Your task to perform on an android device: Find coffee shops on Maps Image 0: 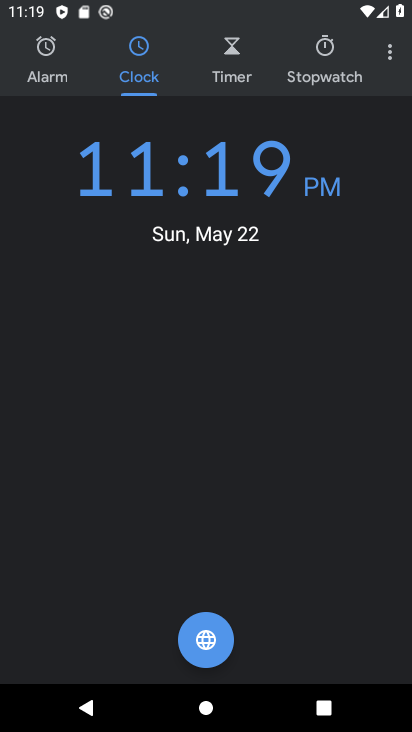
Step 0: press home button
Your task to perform on an android device: Find coffee shops on Maps Image 1: 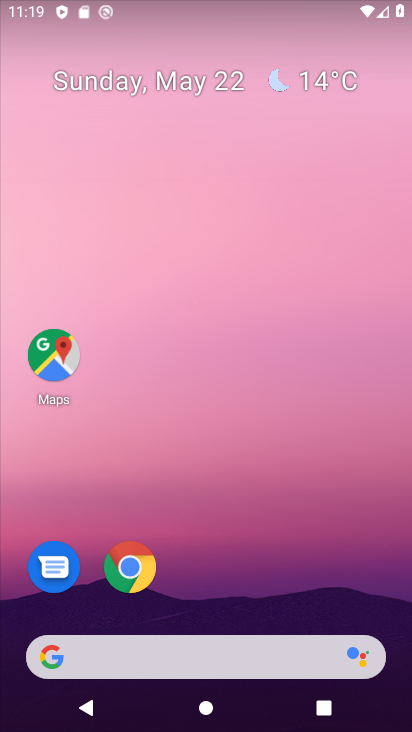
Step 1: click (55, 358)
Your task to perform on an android device: Find coffee shops on Maps Image 2: 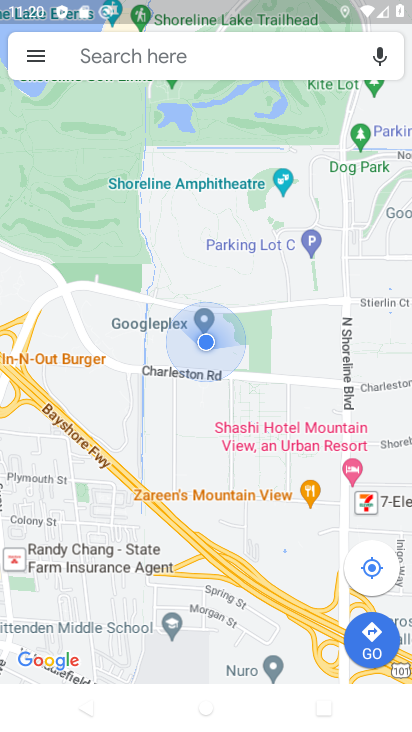
Step 2: click (165, 57)
Your task to perform on an android device: Find coffee shops on Maps Image 3: 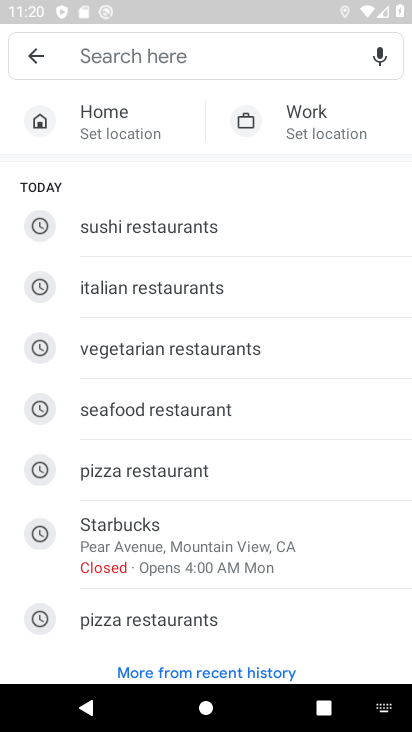
Step 3: type "coffee shop"
Your task to perform on an android device: Find coffee shops on Maps Image 4: 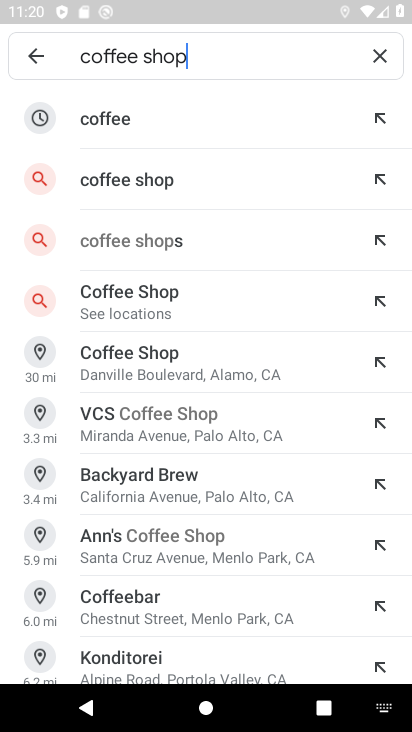
Step 4: click (173, 187)
Your task to perform on an android device: Find coffee shops on Maps Image 5: 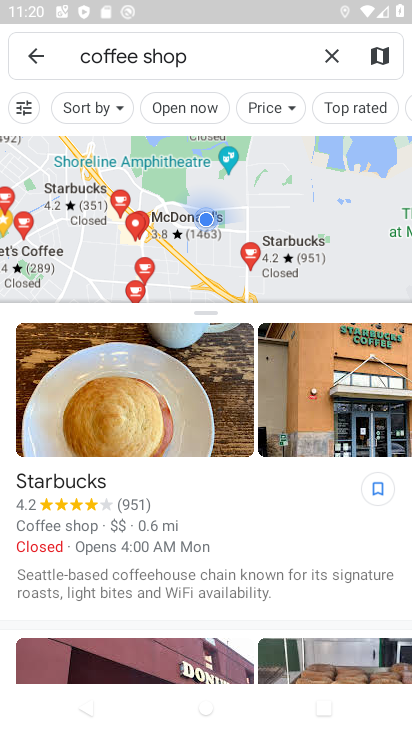
Step 5: task complete